Your task to perform on an android device: Open Maps and search for coffee Image 0: 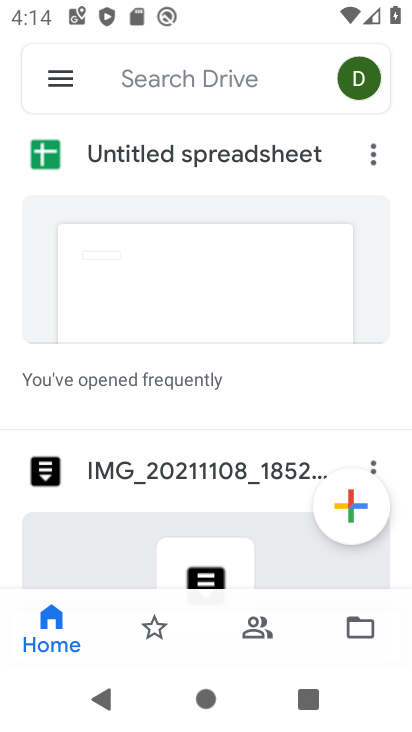
Step 0: press home button
Your task to perform on an android device: Open Maps and search for coffee Image 1: 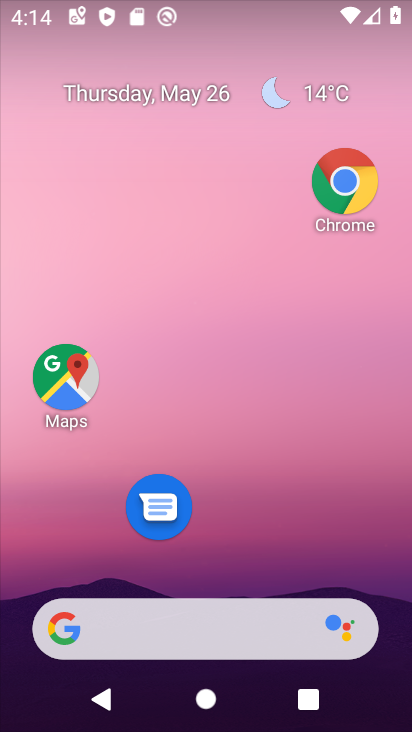
Step 1: drag from (274, 483) to (271, 136)
Your task to perform on an android device: Open Maps and search for coffee Image 2: 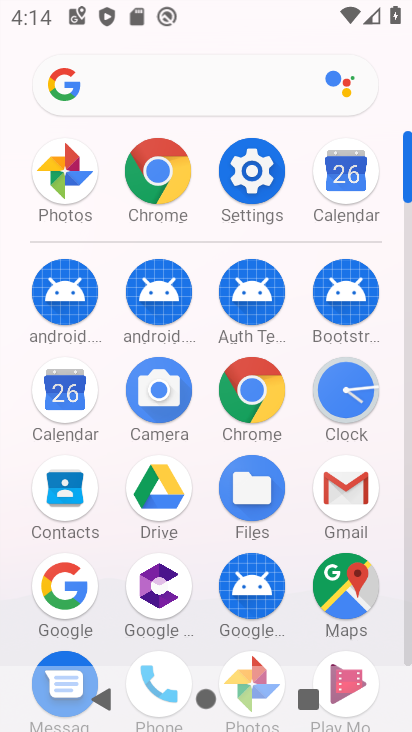
Step 2: click (339, 594)
Your task to perform on an android device: Open Maps and search for coffee Image 3: 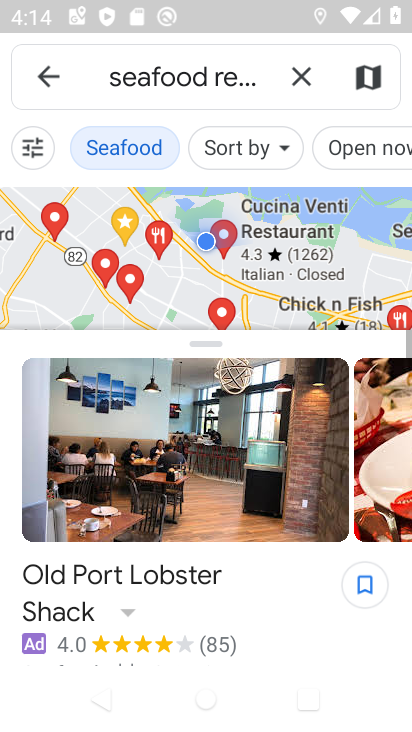
Step 3: click (302, 76)
Your task to perform on an android device: Open Maps and search for coffee Image 4: 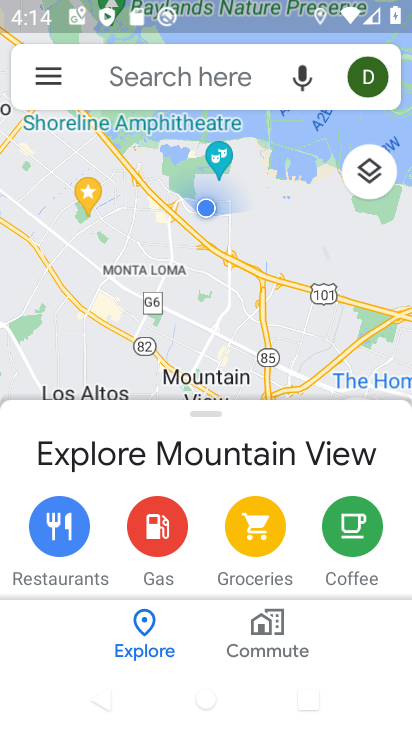
Step 4: click (135, 72)
Your task to perform on an android device: Open Maps and search for coffee Image 5: 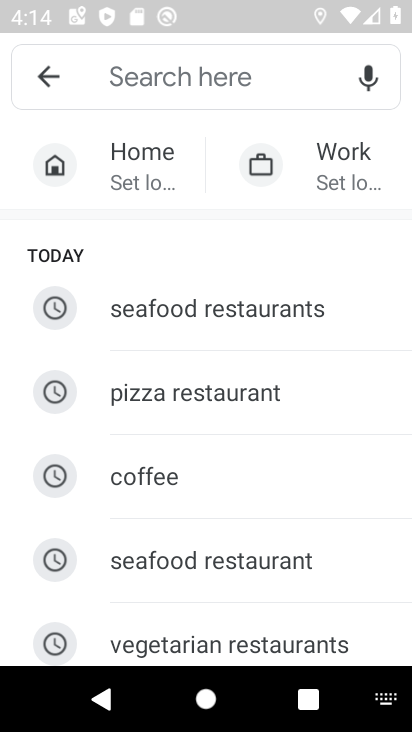
Step 5: type " coffee"
Your task to perform on an android device: Open Maps and search for coffee Image 6: 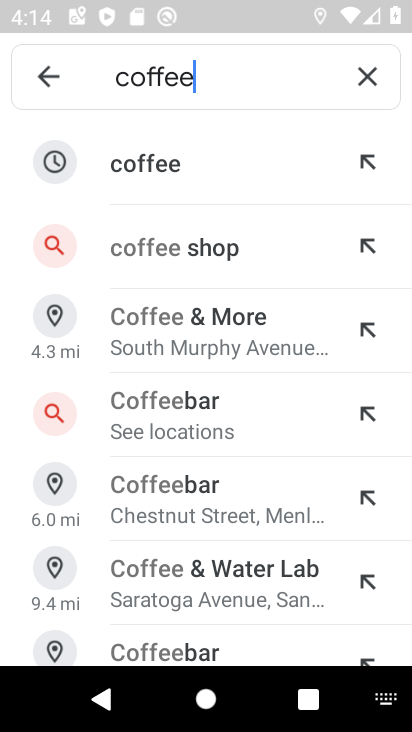
Step 6: click (142, 161)
Your task to perform on an android device: Open Maps and search for coffee Image 7: 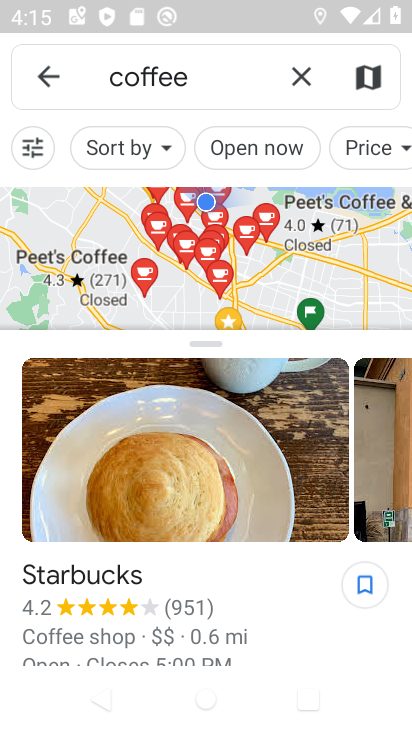
Step 7: task complete